Your task to perform on an android device: View the shopping cart on amazon. Search for logitech g910 on amazon, select the first entry, and add it to the cart. Image 0: 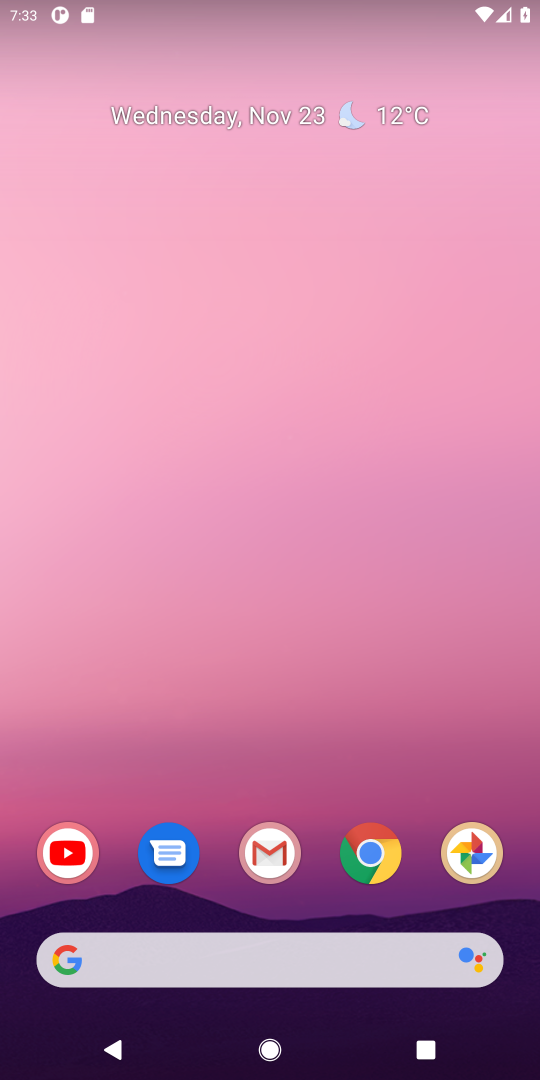
Step 0: click (384, 859)
Your task to perform on an android device: View the shopping cart on amazon. Search for logitech g910 on amazon, select the first entry, and add it to the cart. Image 1: 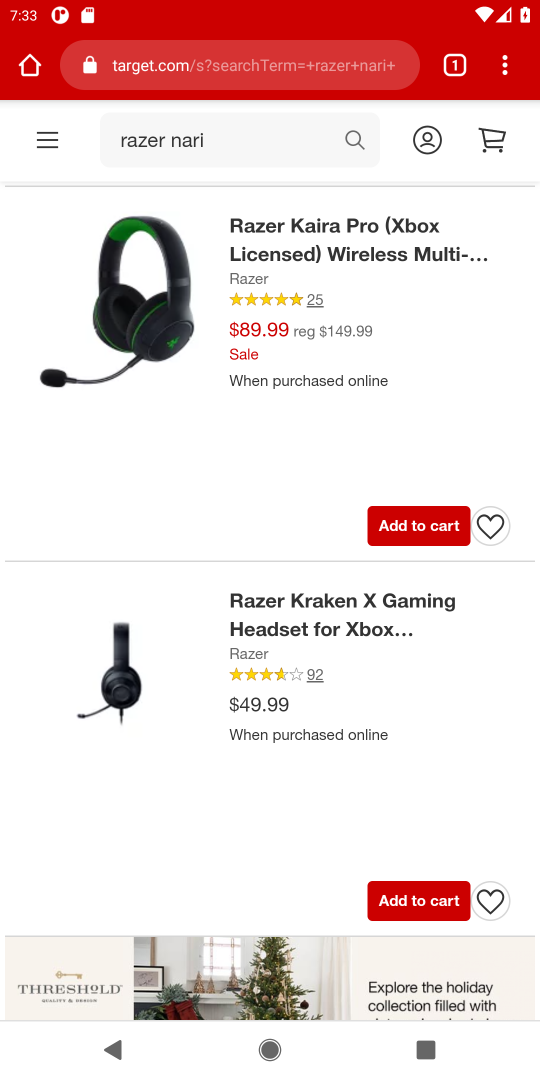
Step 1: click (206, 77)
Your task to perform on an android device: View the shopping cart on amazon. Search for logitech g910 on amazon, select the first entry, and add it to the cart. Image 2: 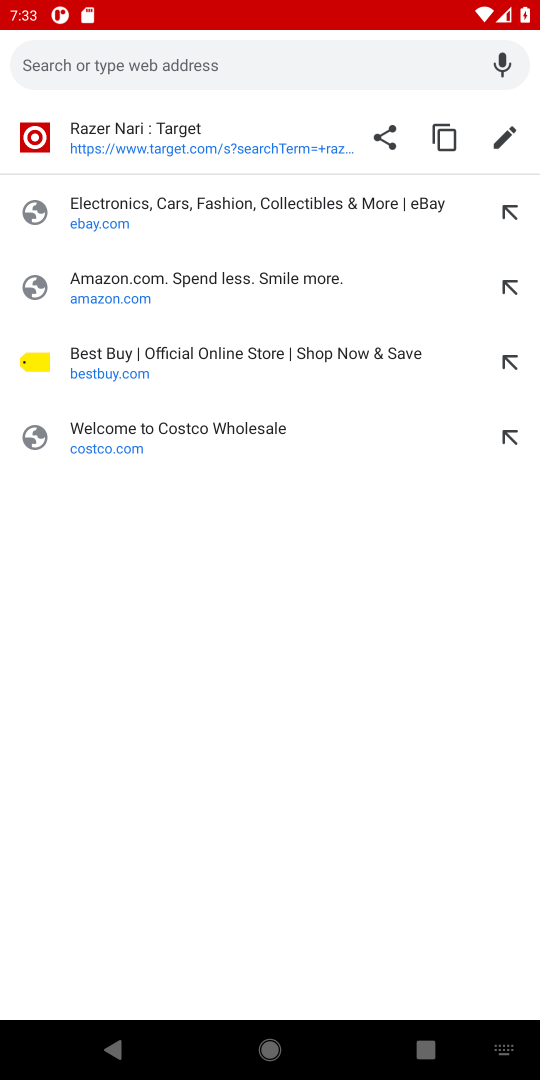
Step 2: click (92, 293)
Your task to perform on an android device: View the shopping cart on amazon. Search for logitech g910 on amazon, select the first entry, and add it to the cart. Image 3: 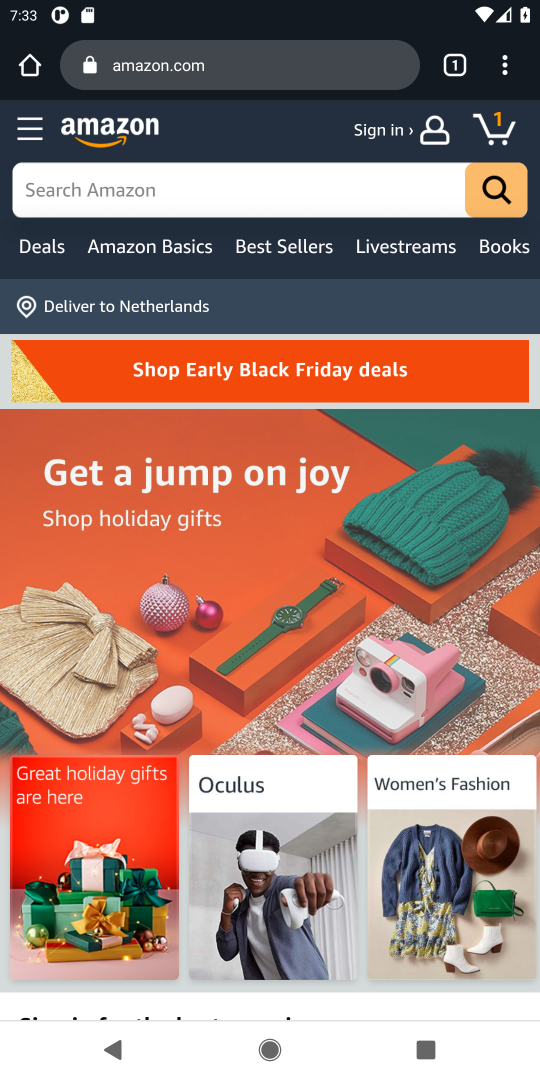
Step 3: click (498, 137)
Your task to perform on an android device: View the shopping cart on amazon. Search for logitech g910 on amazon, select the first entry, and add it to the cart. Image 4: 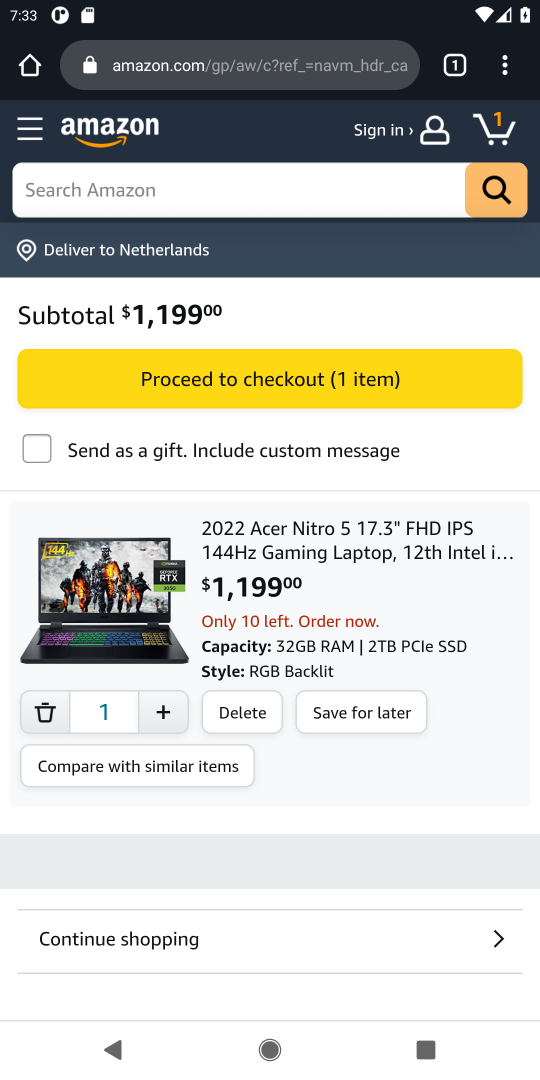
Step 4: click (126, 191)
Your task to perform on an android device: View the shopping cart on amazon. Search for logitech g910 on amazon, select the first entry, and add it to the cart. Image 5: 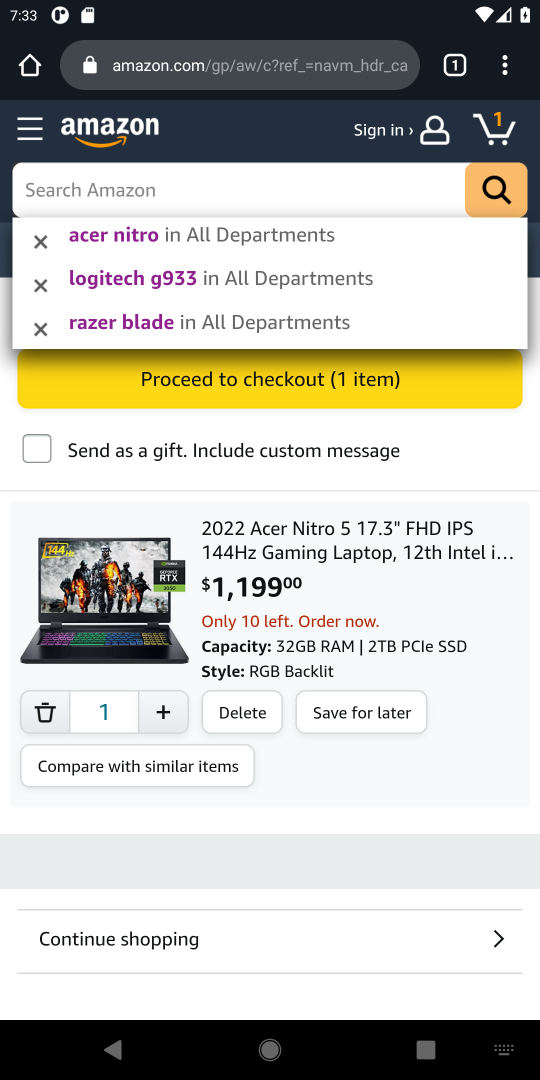
Step 5: type " logitech g910 "
Your task to perform on an android device: View the shopping cart on amazon. Search for logitech g910 on amazon, select the first entry, and add it to the cart. Image 6: 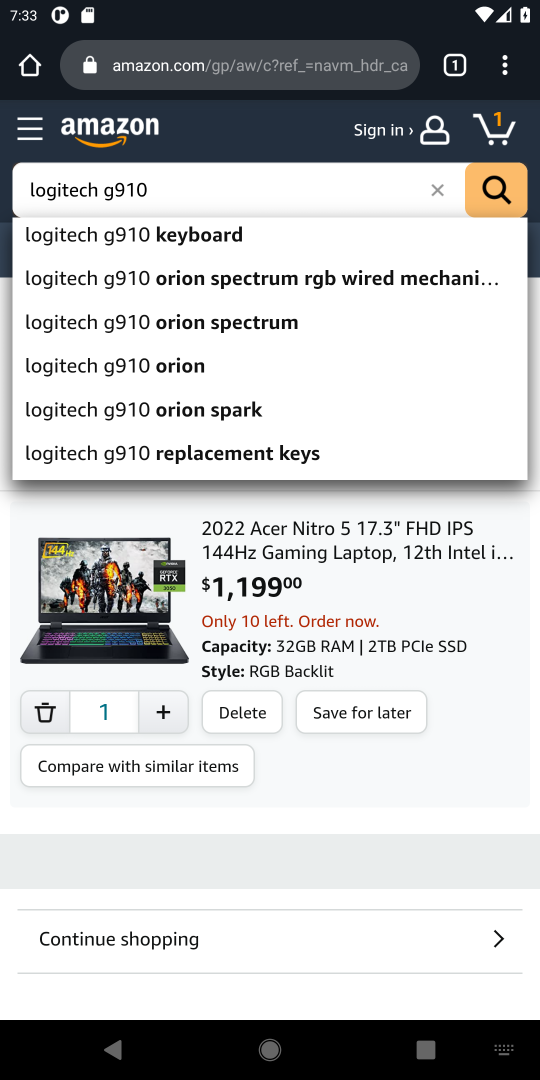
Step 6: click (492, 193)
Your task to perform on an android device: View the shopping cart on amazon. Search for logitech g910 on amazon, select the first entry, and add it to the cart. Image 7: 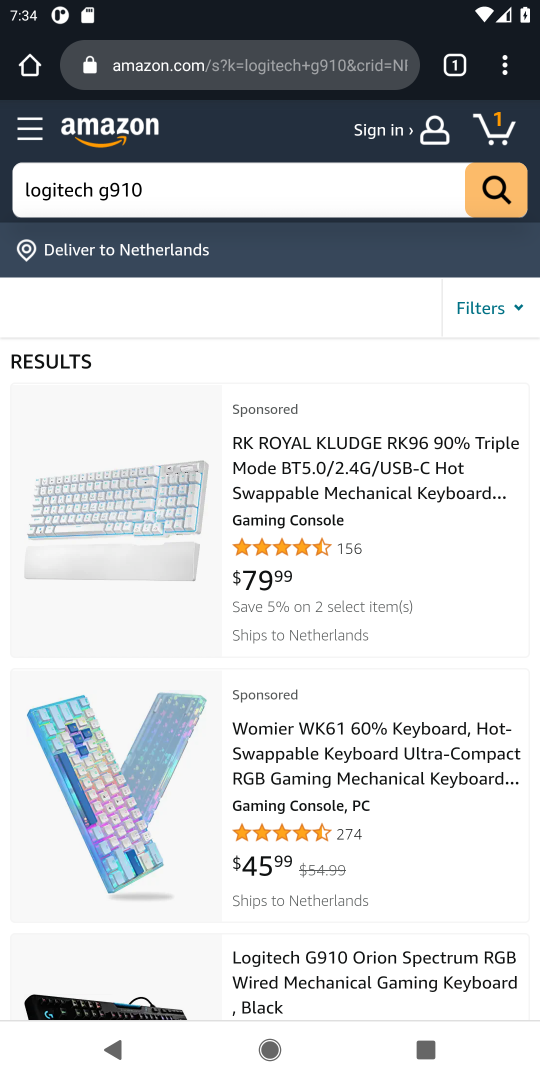
Step 7: task complete